Your task to perform on an android device: Open sound settings Image 0: 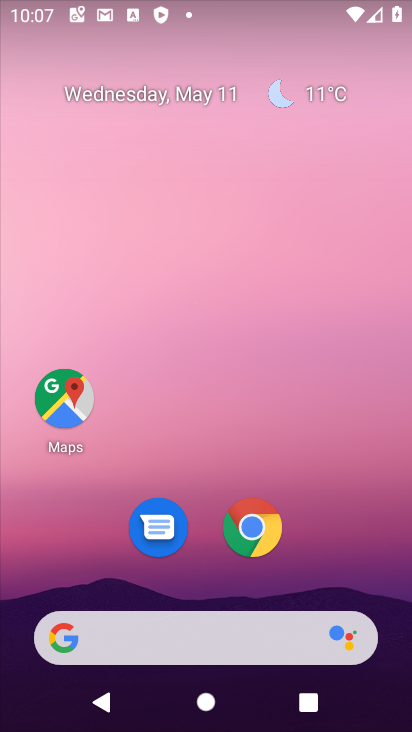
Step 0: drag from (356, 581) to (309, 58)
Your task to perform on an android device: Open sound settings Image 1: 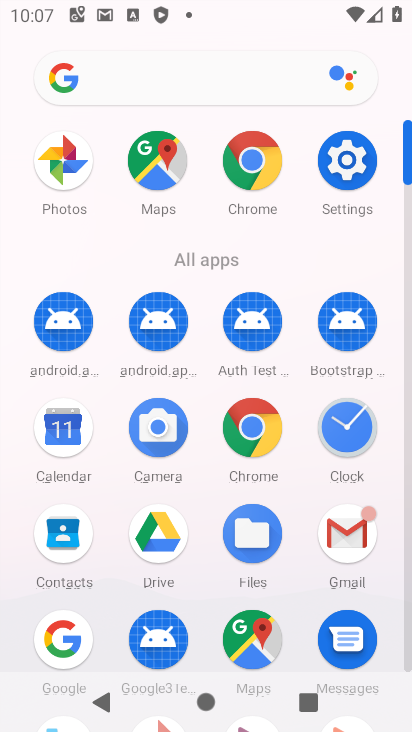
Step 1: click (338, 171)
Your task to perform on an android device: Open sound settings Image 2: 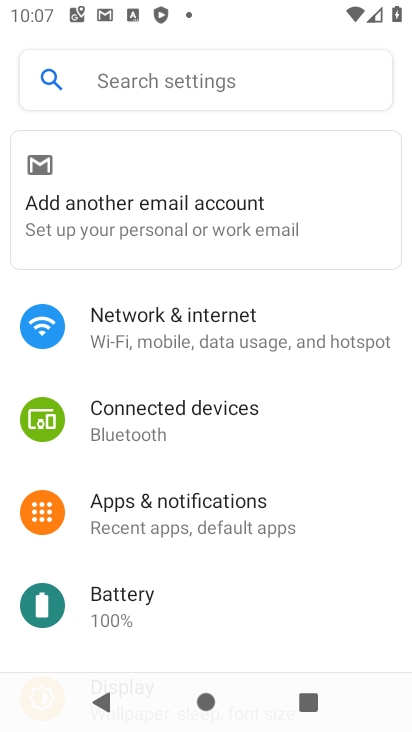
Step 2: drag from (284, 565) to (263, 319)
Your task to perform on an android device: Open sound settings Image 3: 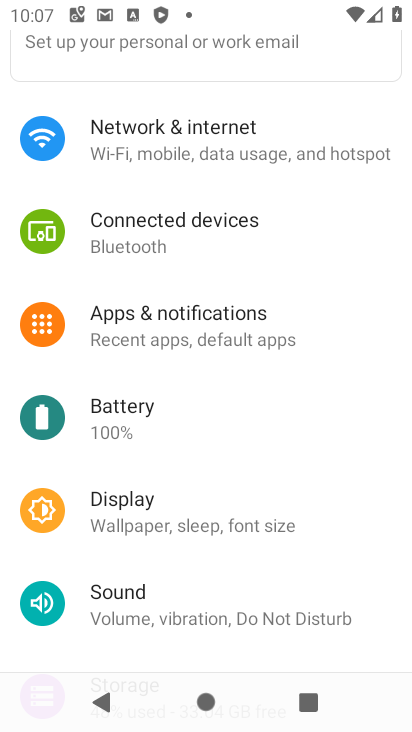
Step 3: drag from (210, 595) to (247, 288)
Your task to perform on an android device: Open sound settings Image 4: 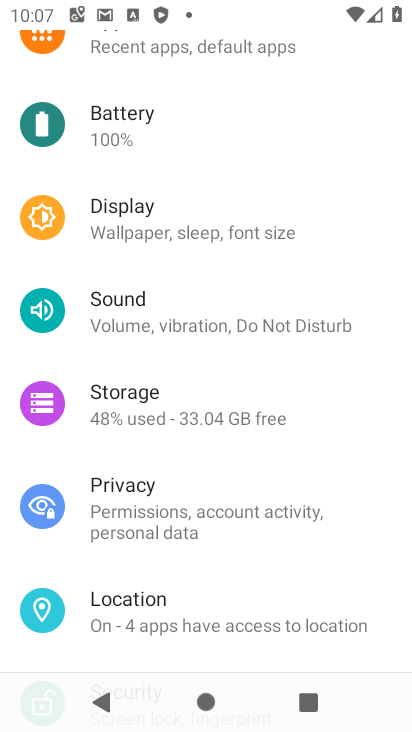
Step 4: click (200, 318)
Your task to perform on an android device: Open sound settings Image 5: 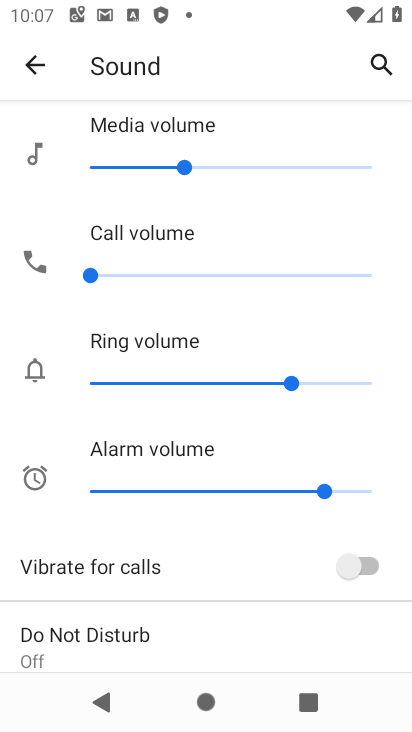
Step 5: task complete